Your task to perform on an android device: Open Google Maps and go to "Timeline" Image 0: 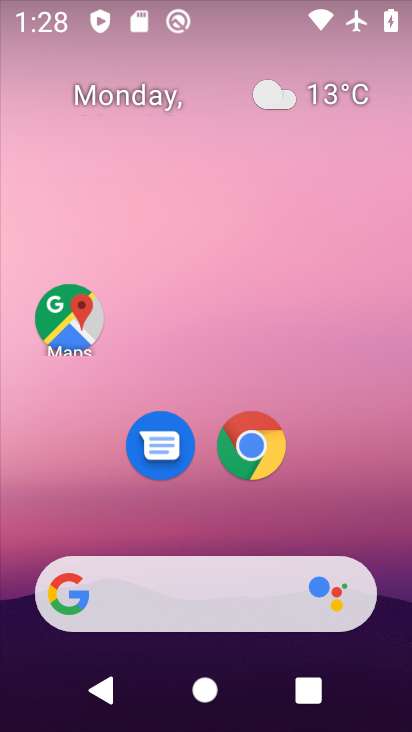
Step 0: drag from (396, 562) to (243, 60)
Your task to perform on an android device: Open Google Maps and go to "Timeline" Image 1: 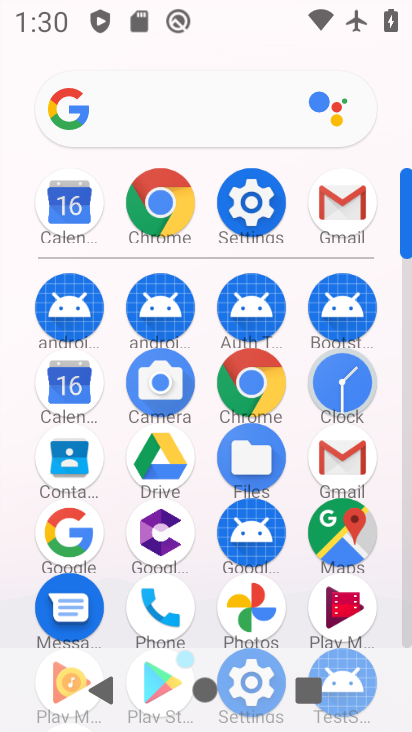
Step 1: click (349, 540)
Your task to perform on an android device: Open Google Maps and go to "Timeline" Image 2: 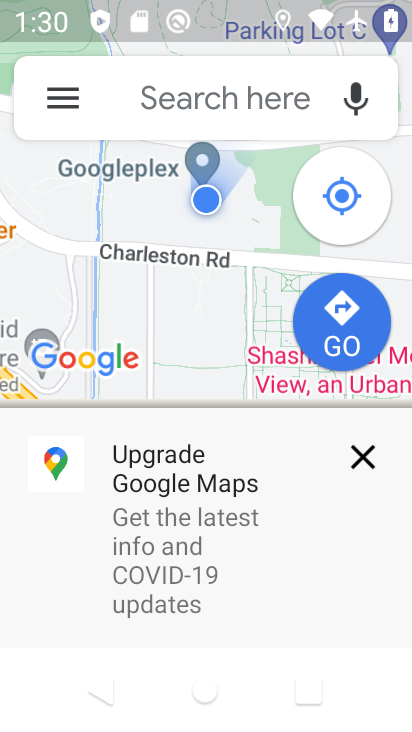
Step 2: click (360, 450)
Your task to perform on an android device: Open Google Maps and go to "Timeline" Image 3: 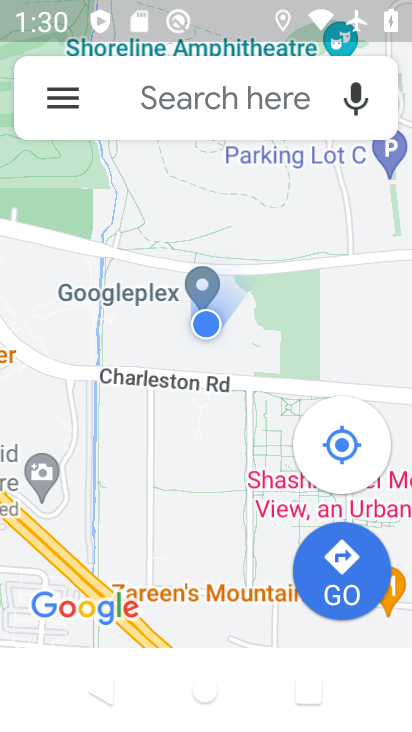
Step 3: click (68, 109)
Your task to perform on an android device: Open Google Maps and go to "Timeline" Image 4: 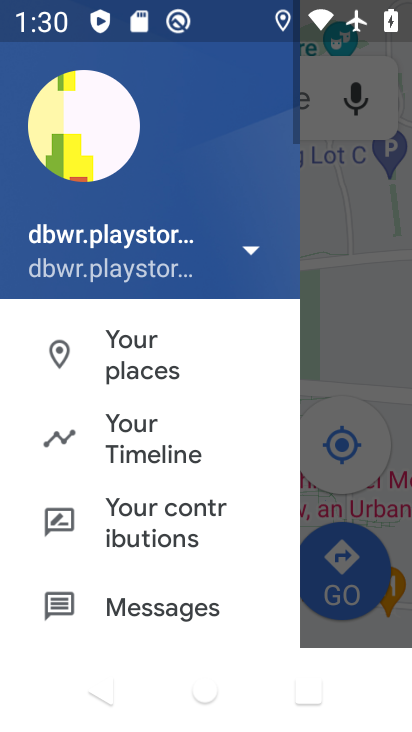
Step 4: click (157, 426)
Your task to perform on an android device: Open Google Maps and go to "Timeline" Image 5: 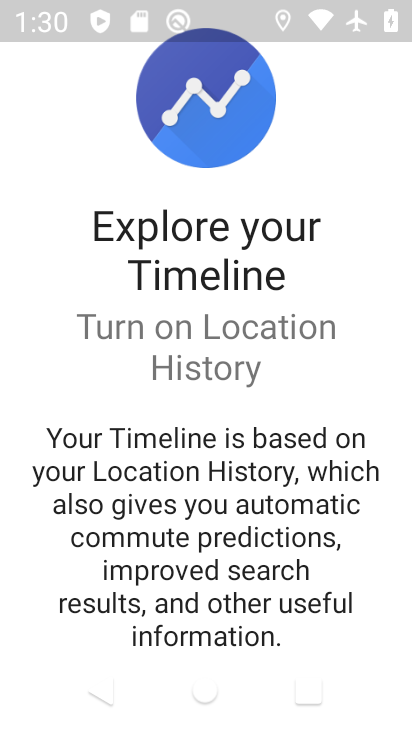
Step 5: task complete